Your task to perform on an android device: add a contact Image 0: 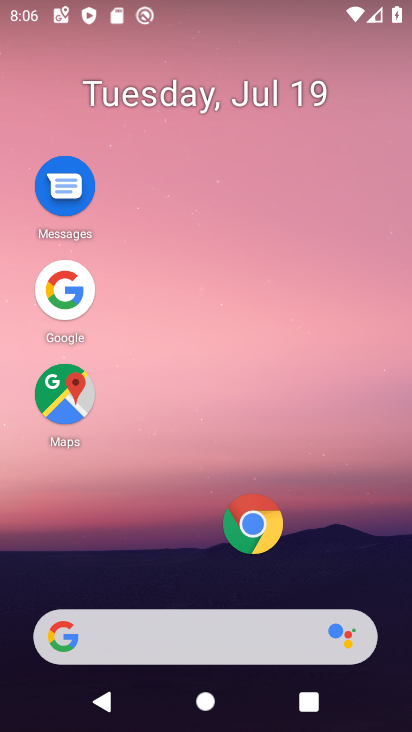
Step 0: drag from (218, 596) to (158, 54)
Your task to perform on an android device: add a contact Image 1: 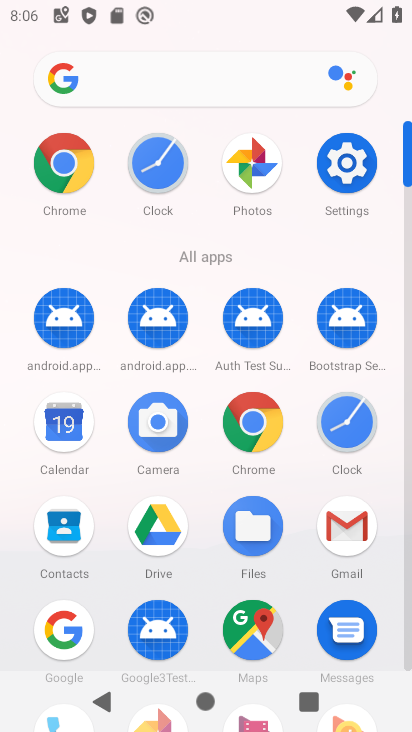
Step 1: drag from (207, 566) to (123, 23)
Your task to perform on an android device: add a contact Image 2: 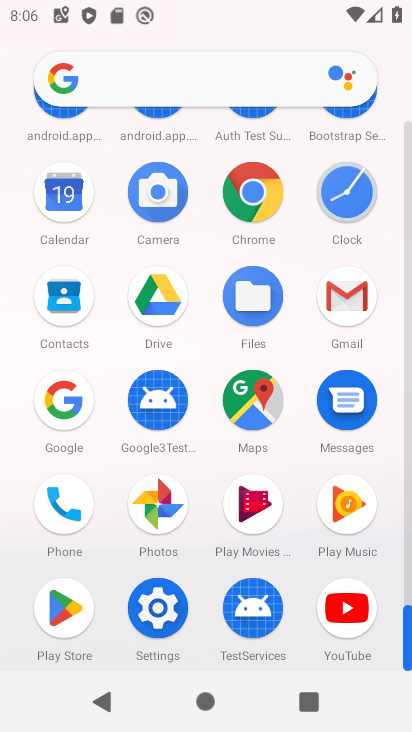
Step 2: click (67, 485)
Your task to perform on an android device: add a contact Image 3: 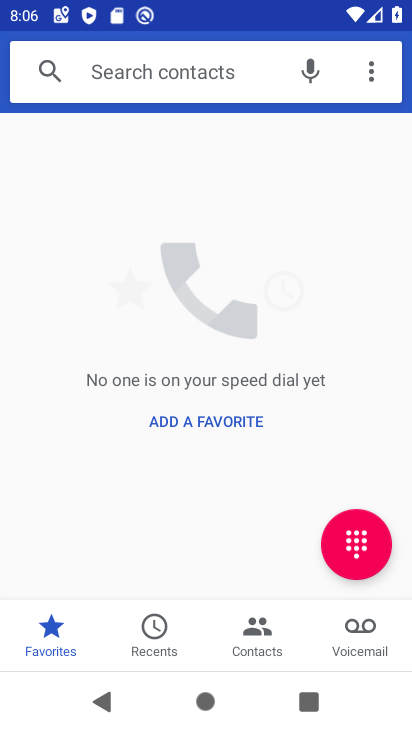
Step 3: click (260, 631)
Your task to perform on an android device: add a contact Image 4: 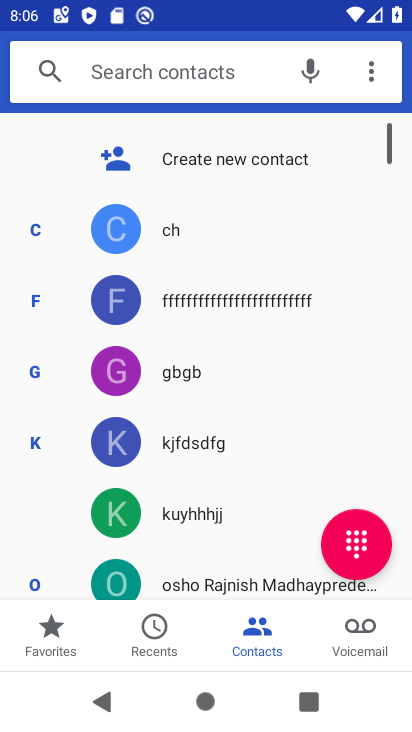
Step 4: click (186, 158)
Your task to perform on an android device: add a contact Image 5: 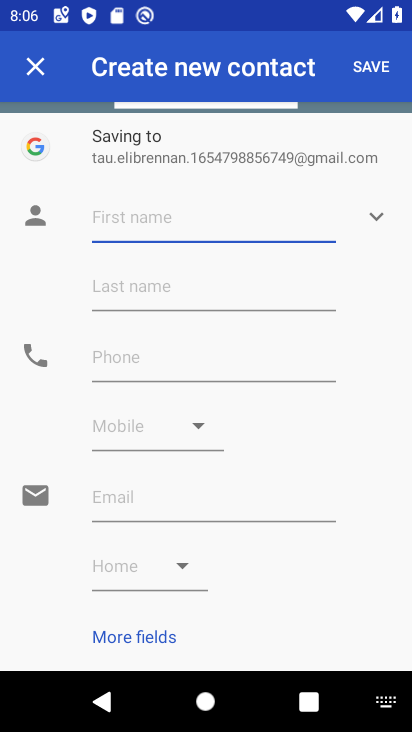
Step 5: type "mvd"
Your task to perform on an android device: add a contact Image 6: 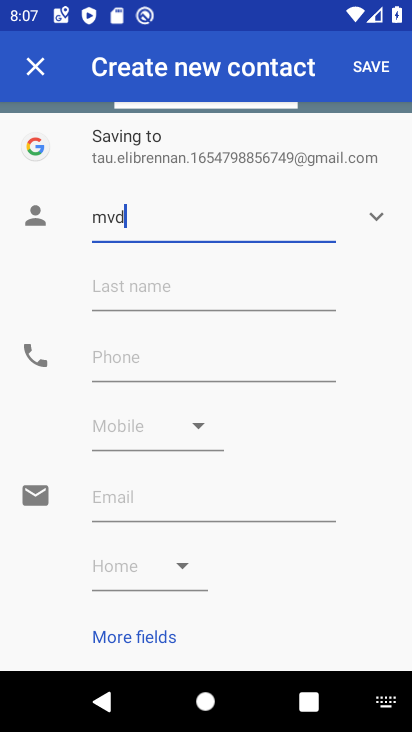
Step 6: click (187, 375)
Your task to perform on an android device: add a contact Image 7: 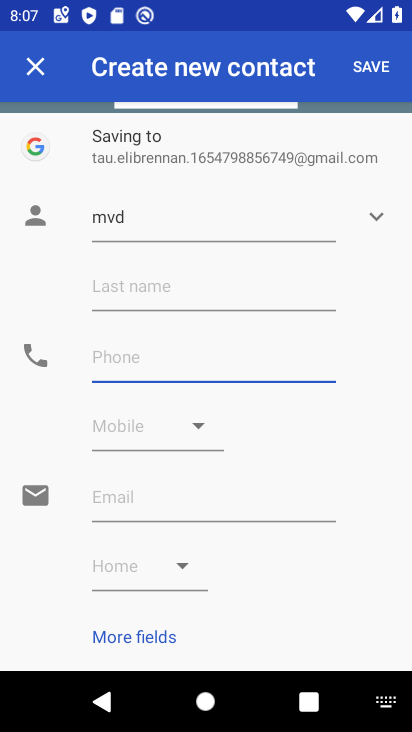
Step 7: type "5434543"
Your task to perform on an android device: add a contact Image 8: 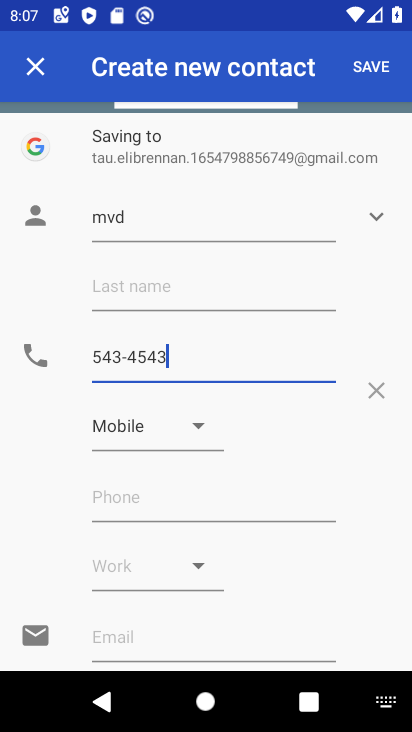
Step 8: click (379, 60)
Your task to perform on an android device: add a contact Image 9: 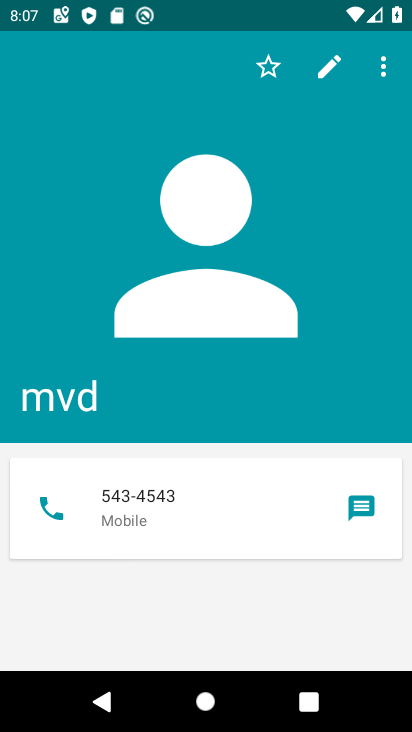
Step 9: task complete